Your task to perform on an android device: see sites visited before in the chrome app Image 0: 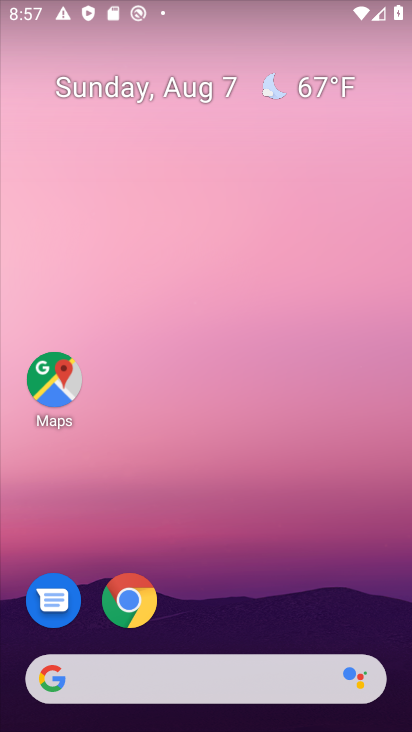
Step 0: click (132, 596)
Your task to perform on an android device: see sites visited before in the chrome app Image 1: 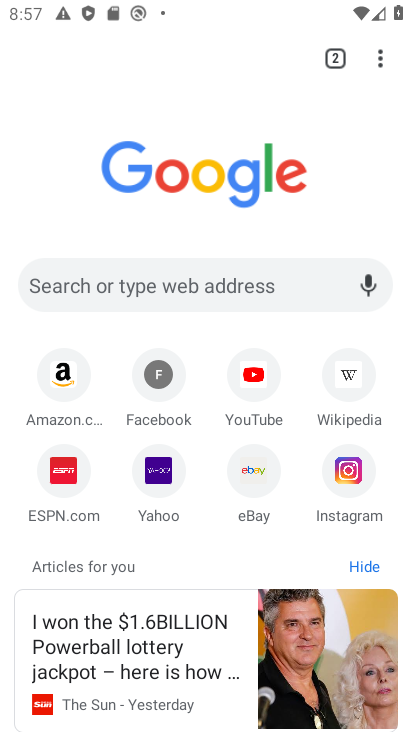
Step 1: click (383, 51)
Your task to perform on an android device: see sites visited before in the chrome app Image 2: 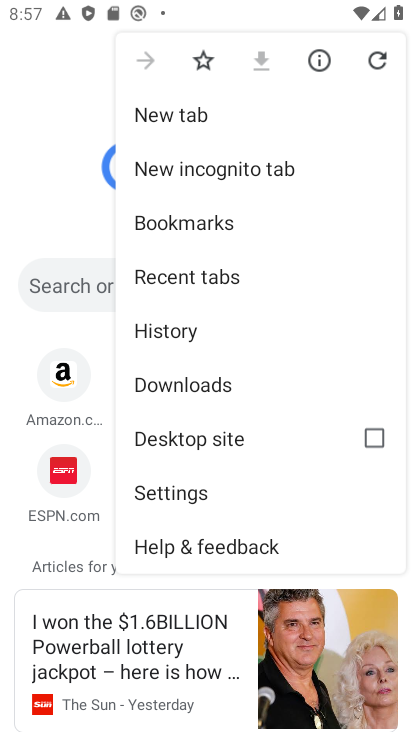
Step 2: click (161, 332)
Your task to perform on an android device: see sites visited before in the chrome app Image 3: 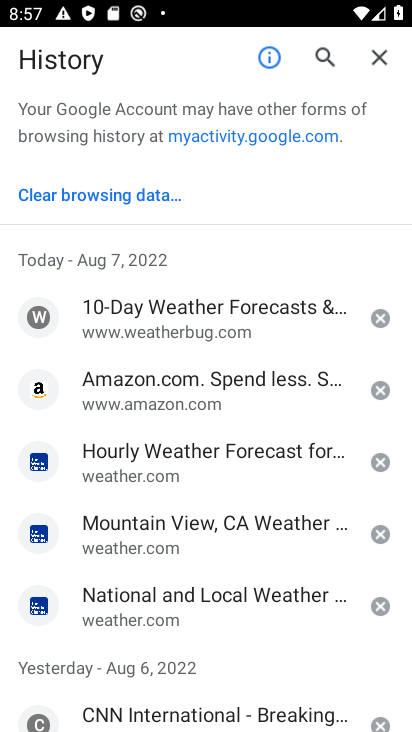
Step 3: task complete